Your task to perform on an android device: open a bookmark in the chrome app Image 0: 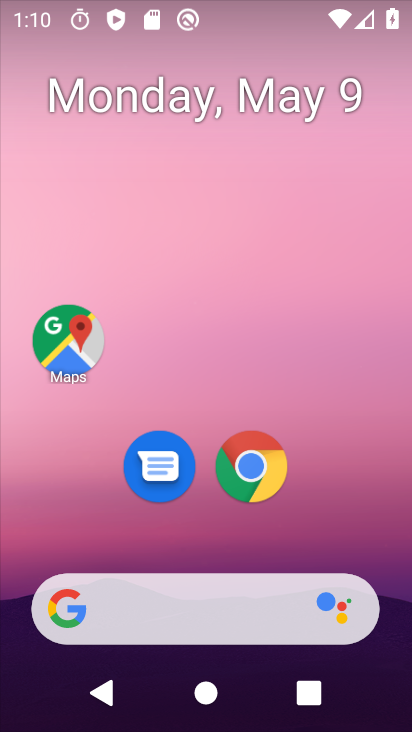
Step 0: drag from (293, 602) to (329, 138)
Your task to perform on an android device: open a bookmark in the chrome app Image 1: 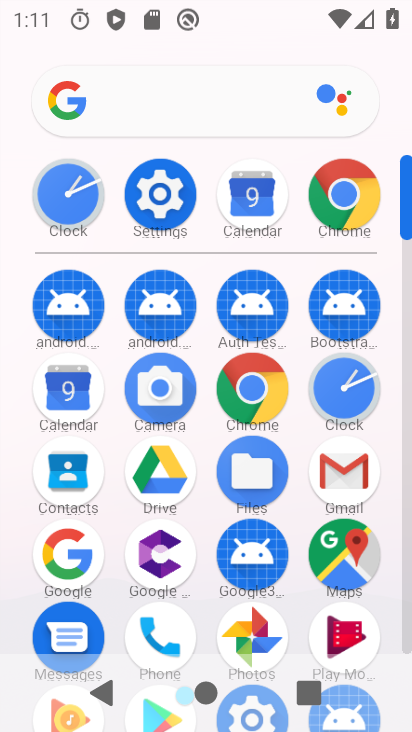
Step 1: click (342, 222)
Your task to perform on an android device: open a bookmark in the chrome app Image 2: 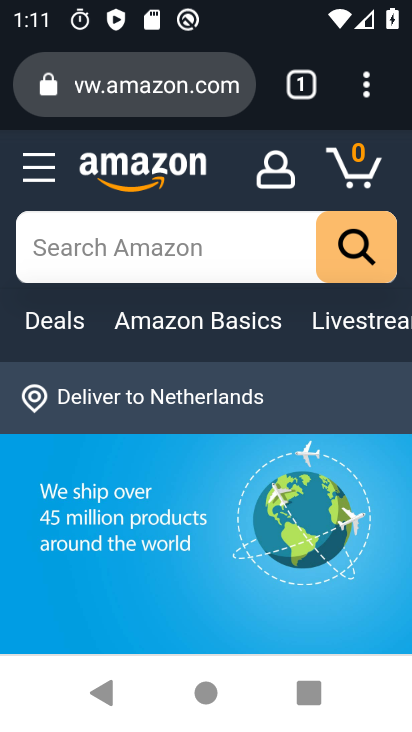
Step 2: click (366, 102)
Your task to perform on an android device: open a bookmark in the chrome app Image 3: 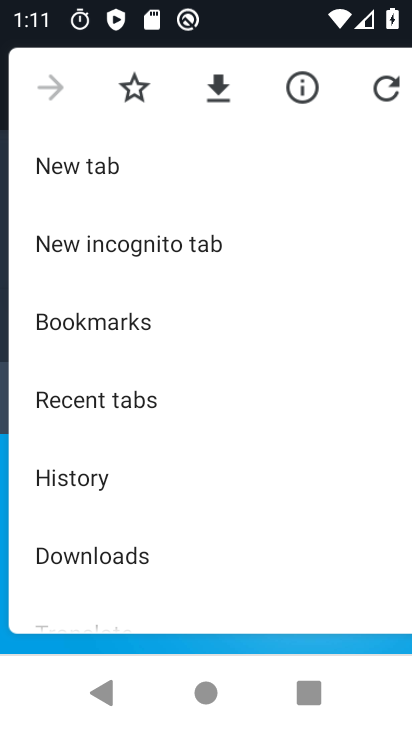
Step 3: click (181, 327)
Your task to perform on an android device: open a bookmark in the chrome app Image 4: 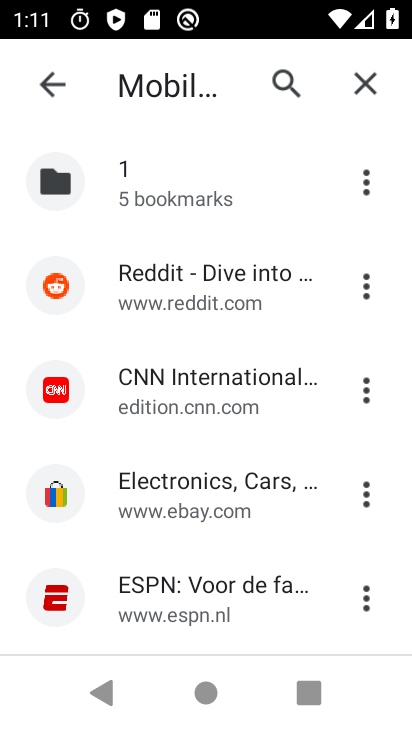
Step 4: task complete